Your task to perform on an android device: Clear all items from cart on walmart.com. Image 0: 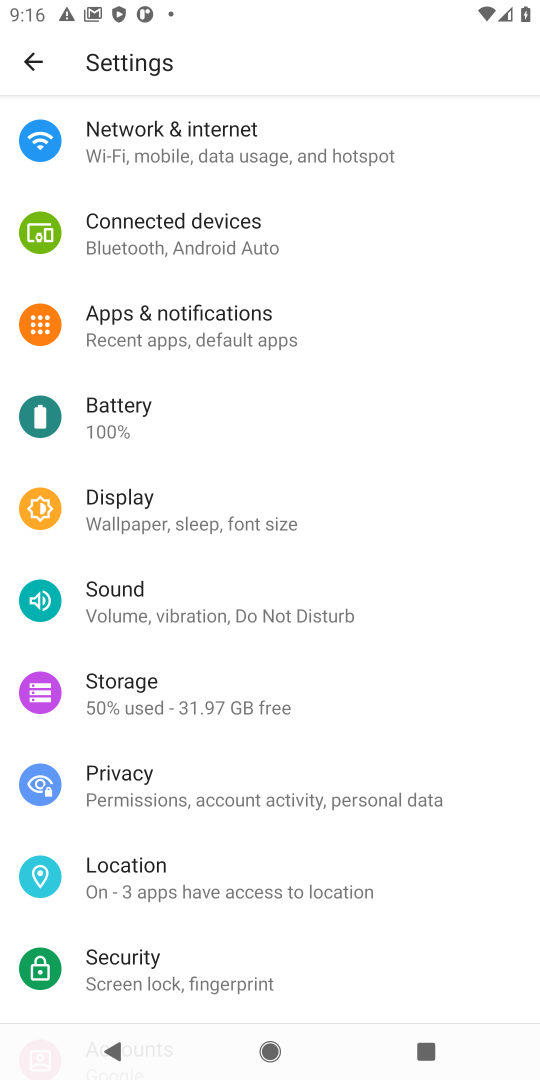
Step 0: press home button
Your task to perform on an android device: Clear all items from cart on walmart.com. Image 1: 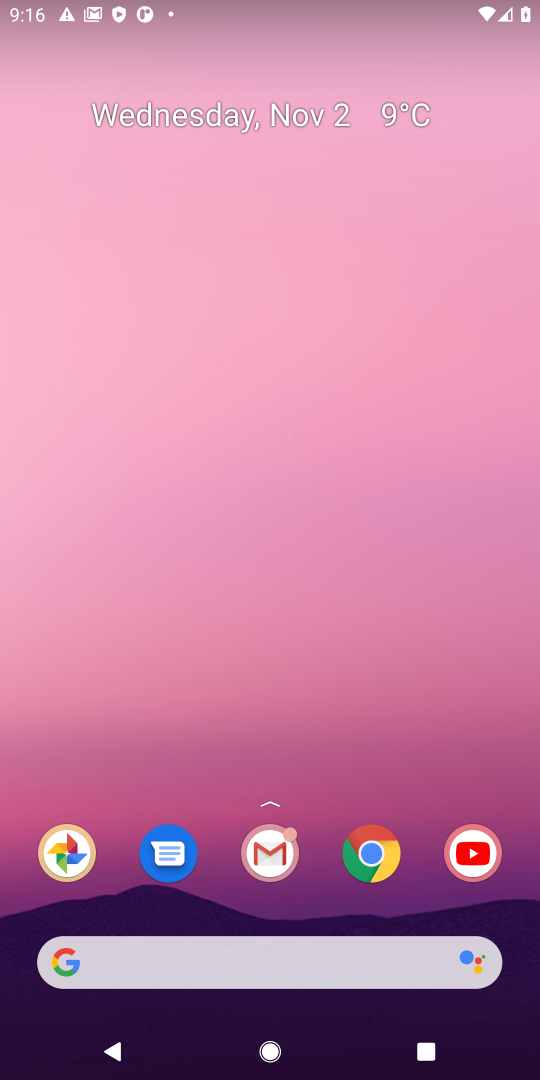
Step 1: click (378, 848)
Your task to perform on an android device: Clear all items from cart on walmart.com. Image 2: 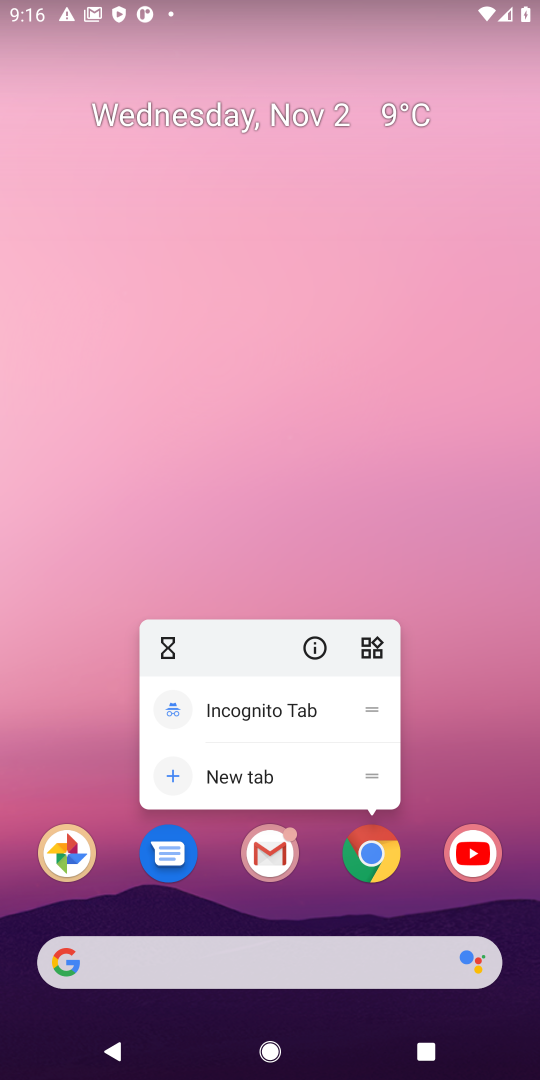
Step 2: click (365, 860)
Your task to perform on an android device: Clear all items from cart on walmart.com. Image 3: 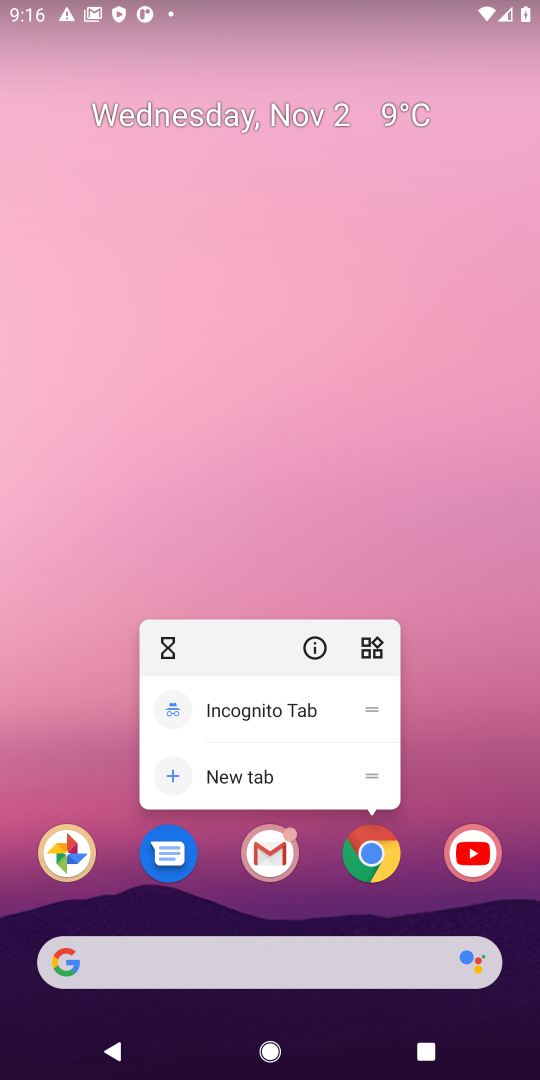
Step 3: click (365, 862)
Your task to perform on an android device: Clear all items from cart on walmart.com. Image 4: 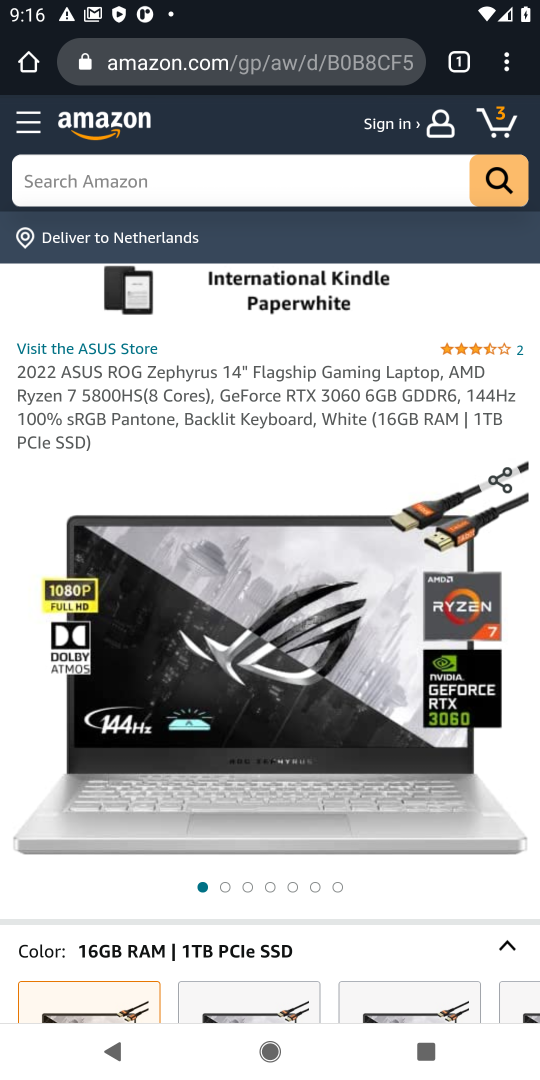
Step 4: click (283, 65)
Your task to perform on an android device: Clear all items from cart on walmart.com. Image 5: 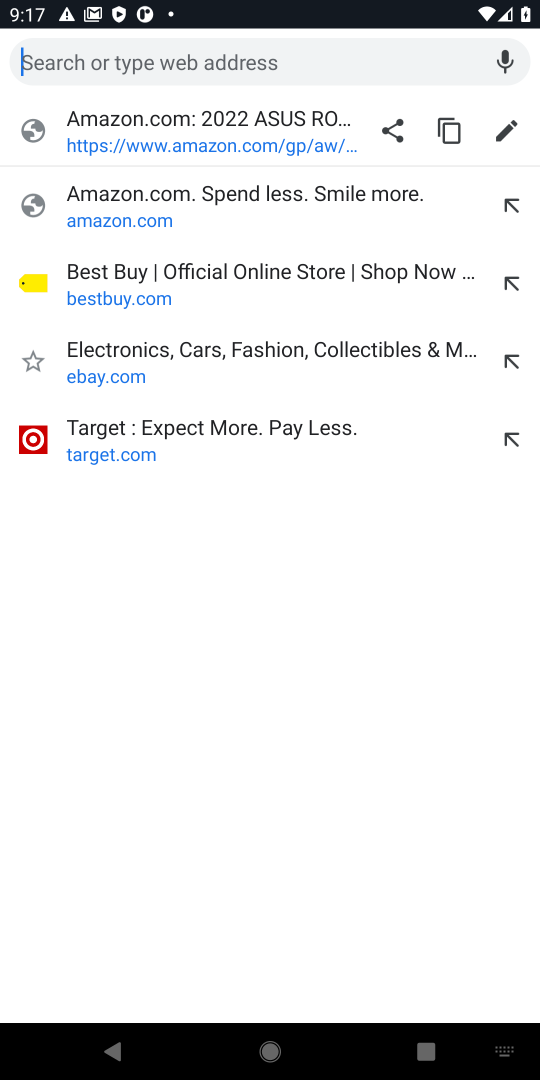
Step 5: type " walmart.com"
Your task to perform on an android device: Clear all items from cart on walmart.com. Image 6: 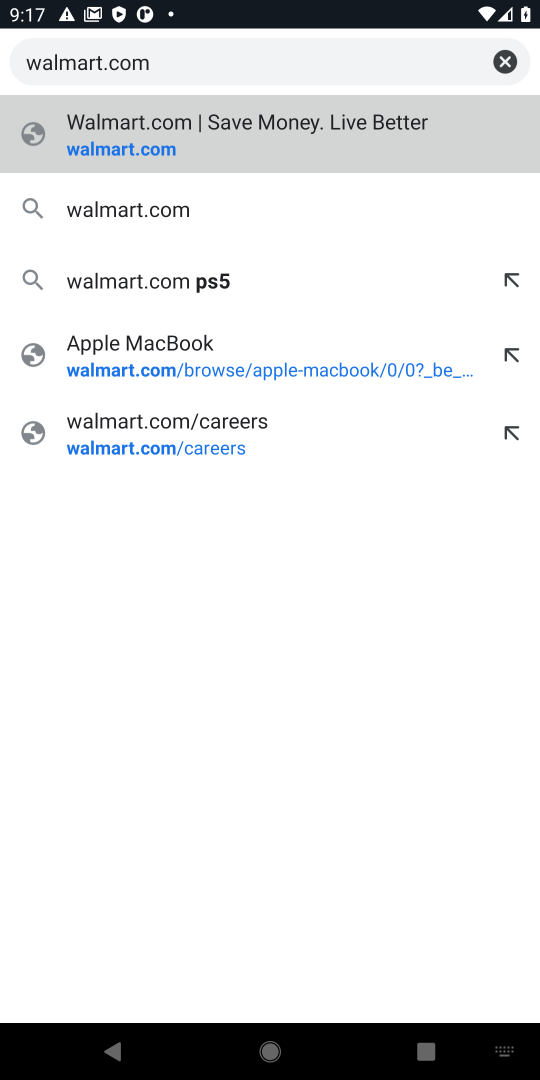
Step 6: press enter
Your task to perform on an android device: Clear all items from cart on walmart.com. Image 7: 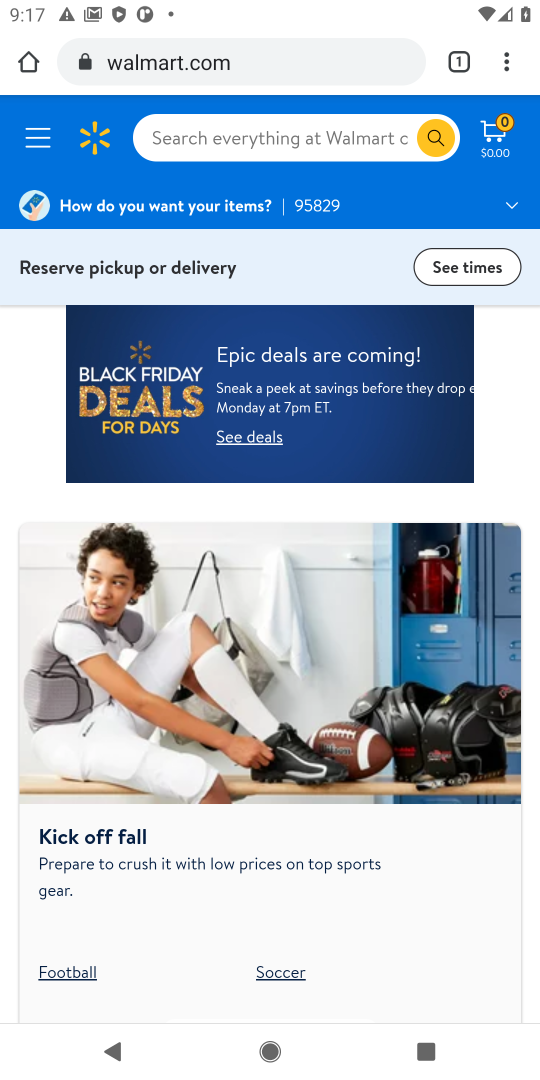
Step 7: click (494, 130)
Your task to perform on an android device: Clear all items from cart on walmart.com. Image 8: 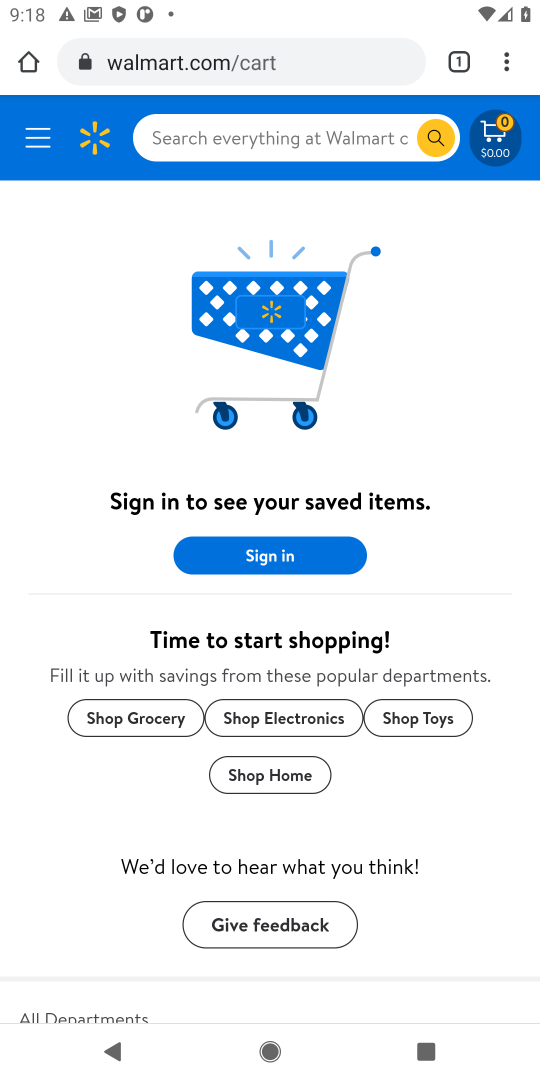
Step 8: task complete